Your task to perform on an android device: turn off airplane mode Image 0: 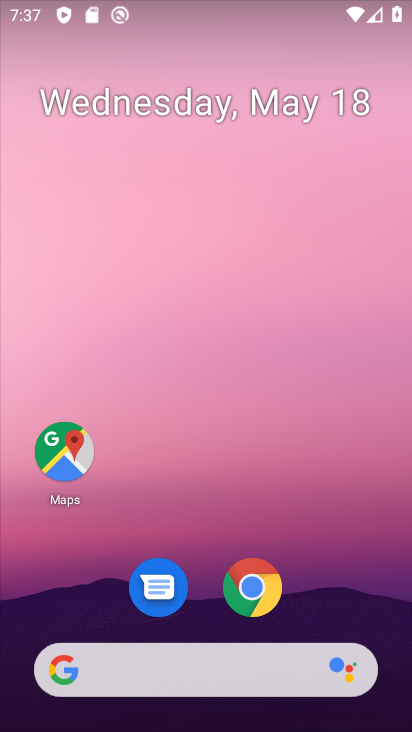
Step 0: drag from (204, 13) to (13, 714)
Your task to perform on an android device: turn off airplane mode Image 1: 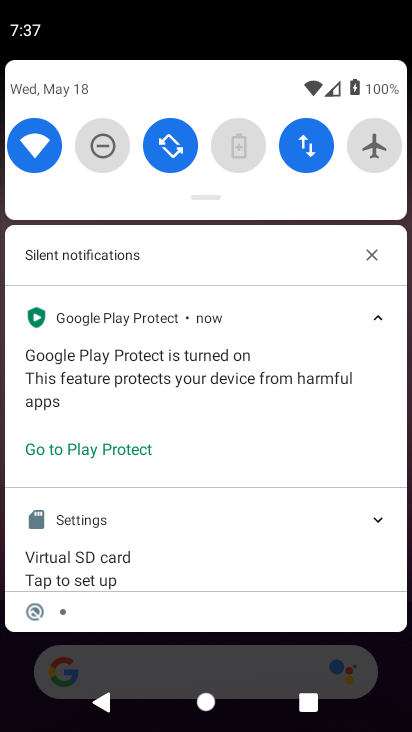
Step 1: task complete